Your task to perform on an android device: Search for "razer blade" on target.com, select the first entry, and add it to the cart. Image 0: 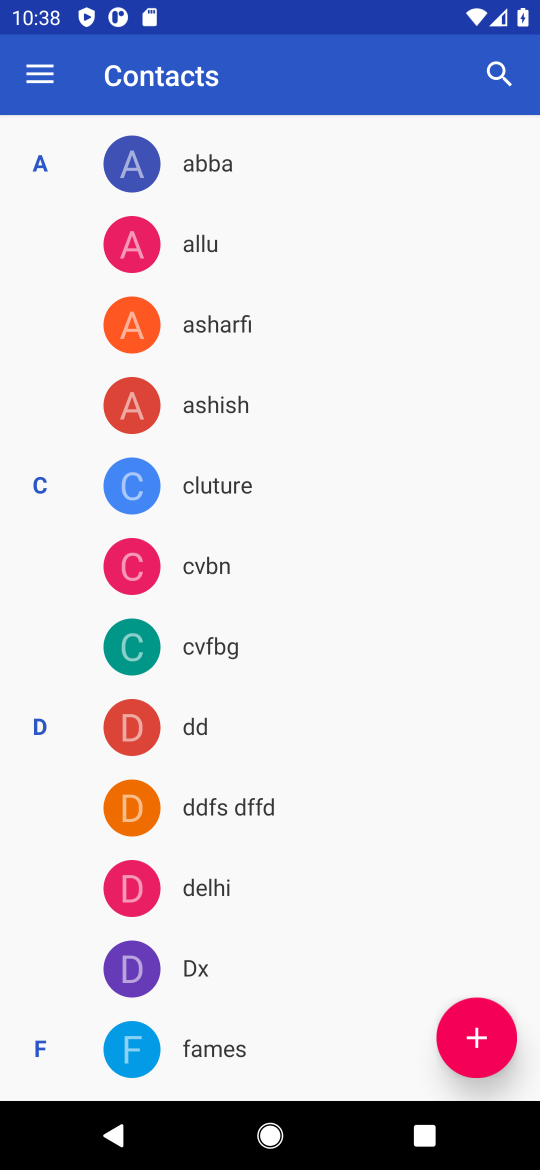
Step 0: press home button
Your task to perform on an android device: Search for "razer blade" on target.com, select the first entry, and add it to the cart. Image 1: 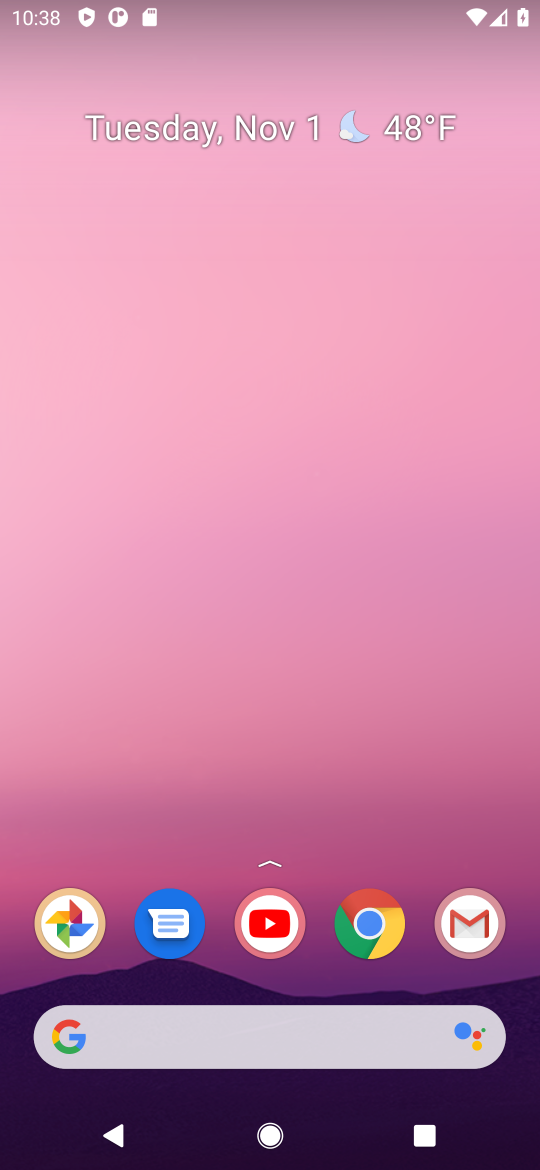
Step 1: click (366, 910)
Your task to perform on an android device: Search for "razer blade" on target.com, select the first entry, and add it to the cart. Image 2: 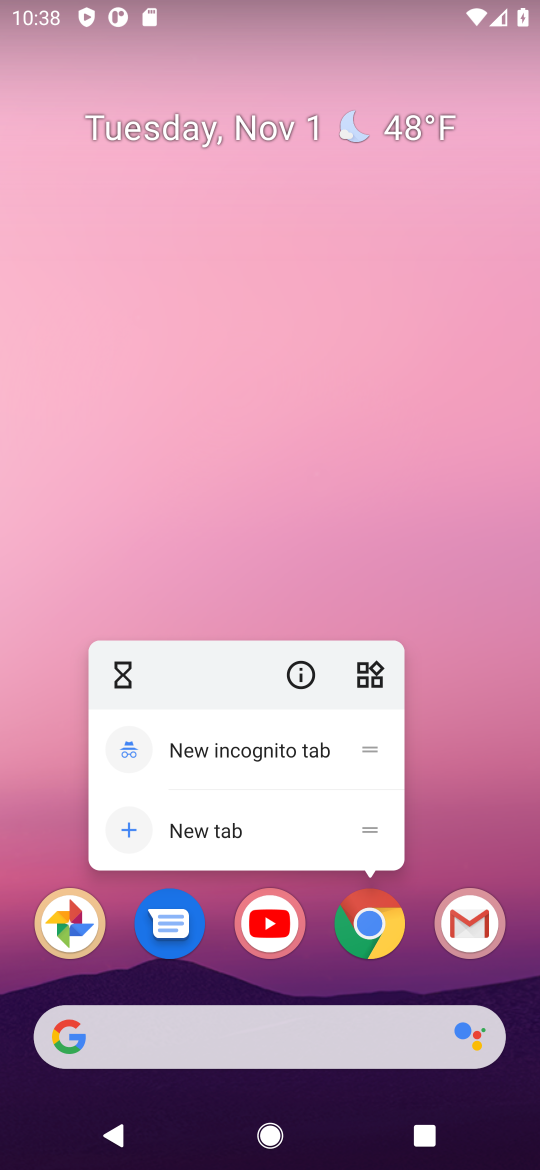
Step 2: click (366, 910)
Your task to perform on an android device: Search for "razer blade" on target.com, select the first entry, and add it to the cart. Image 3: 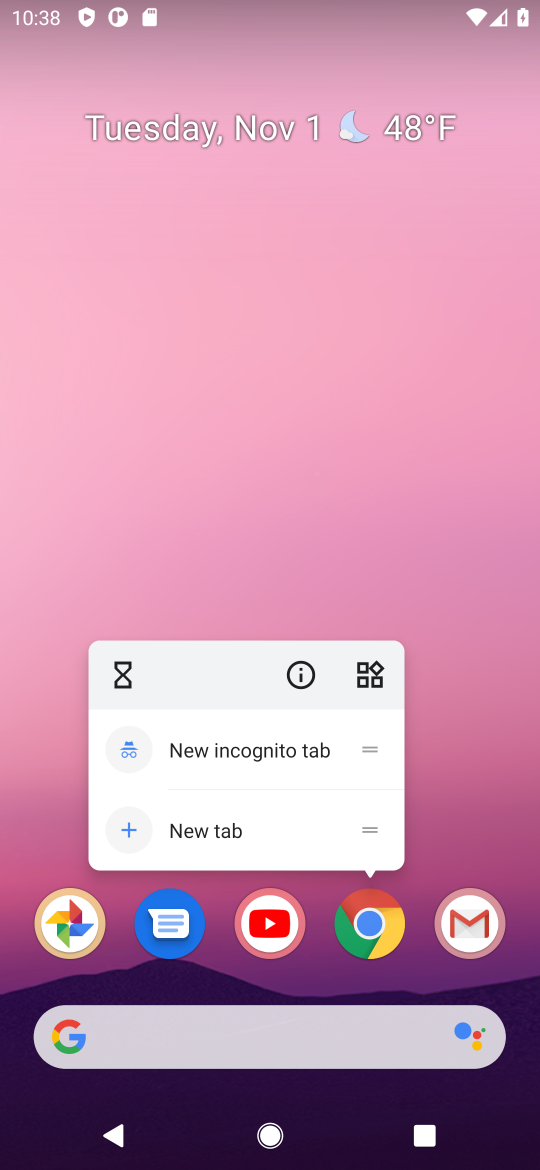
Step 3: click (366, 910)
Your task to perform on an android device: Search for "razer blade" on target.com, select the first entry, and add it to the cart. Image 4: 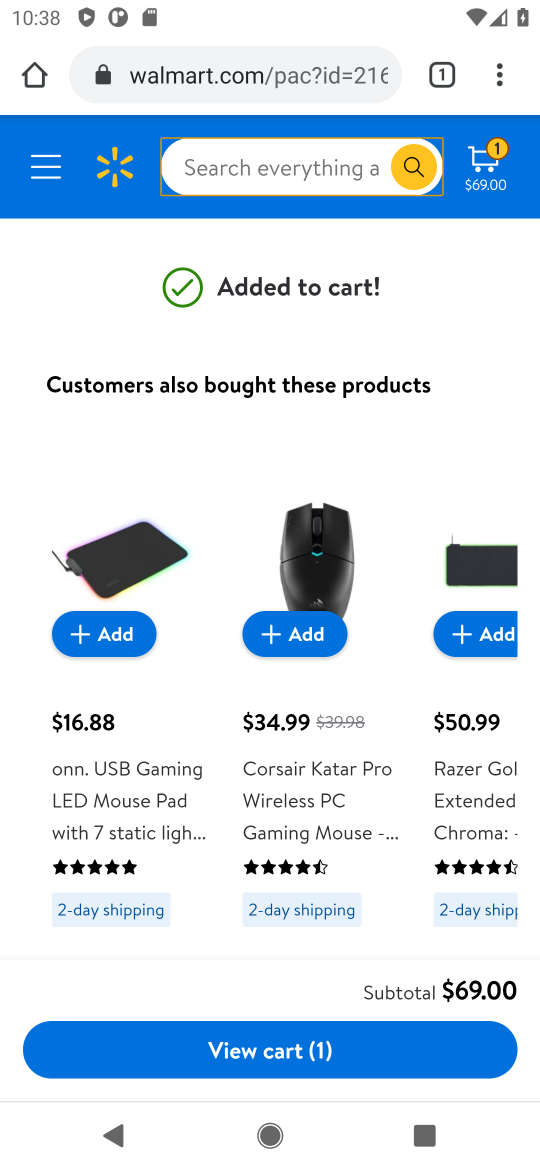
Step 4: click (258, 77)
Your task to perform on an android device: Search for "razer blade" on target.com, select the first entry, and add it to the cart. Image 5: 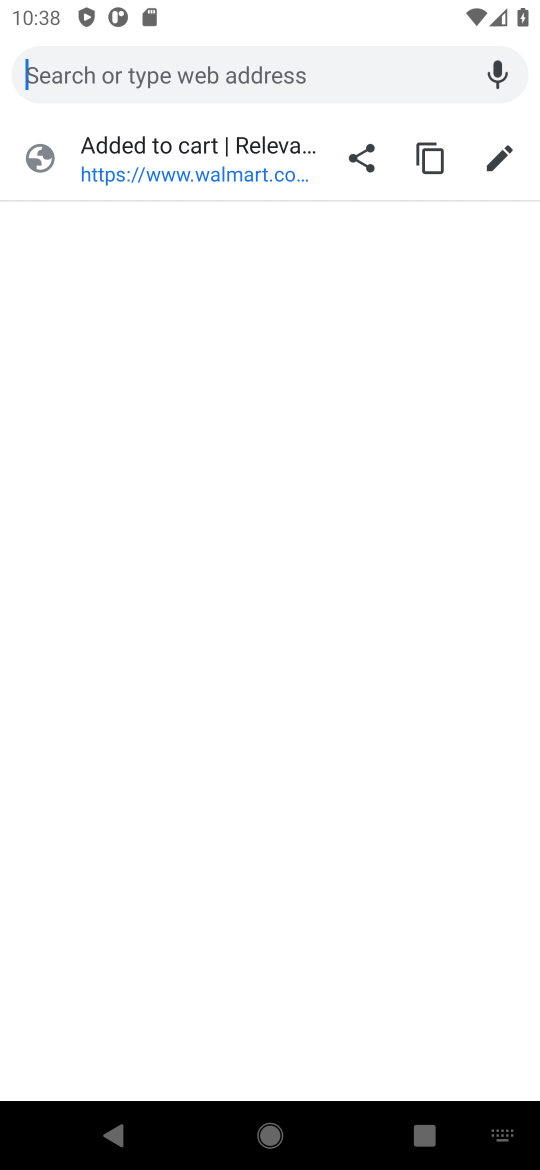
Step 5: type "target.com"
Your task to perform on an android device: Search for "razer blade" on target.com, select the first entry, and add it to the cart. Image 6: 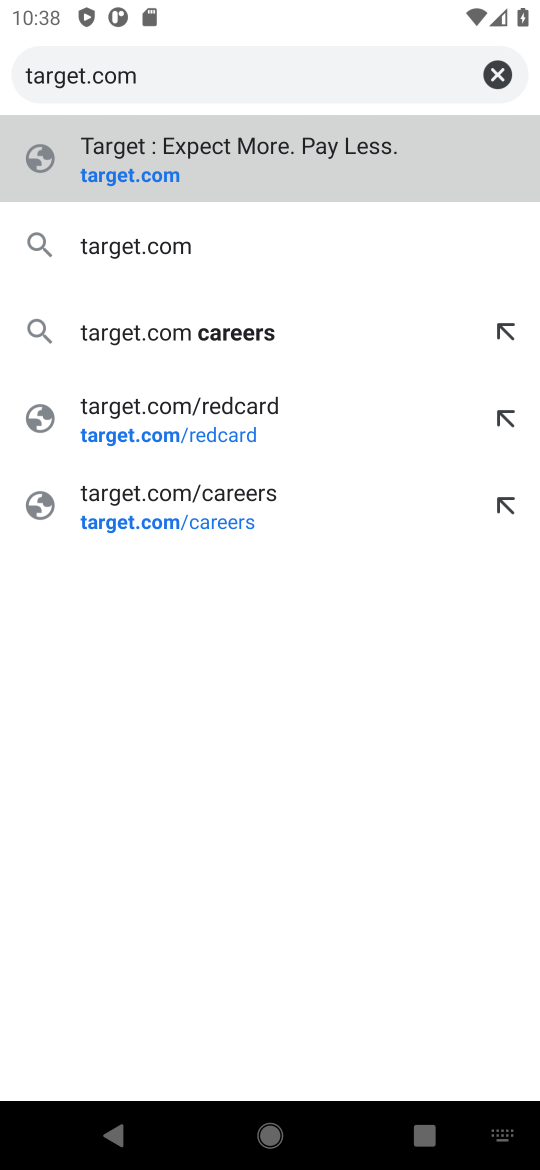
Step 6: click (278, 170)
Your task to perform on an android device: Search for "razer blade" on target.com, select the first entry, and add it to the cart. Image 7: 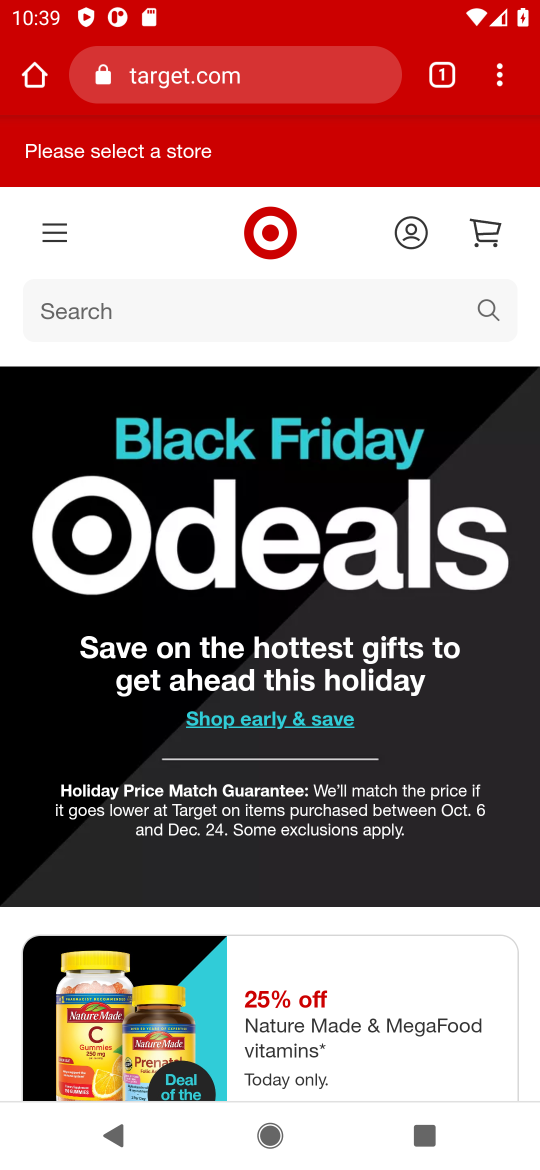
Step 7: click (272, 317)
Your task to perform on an android device: Search for "razer blade" on target.com, select the first entry, and add it to the cart. Image 8: 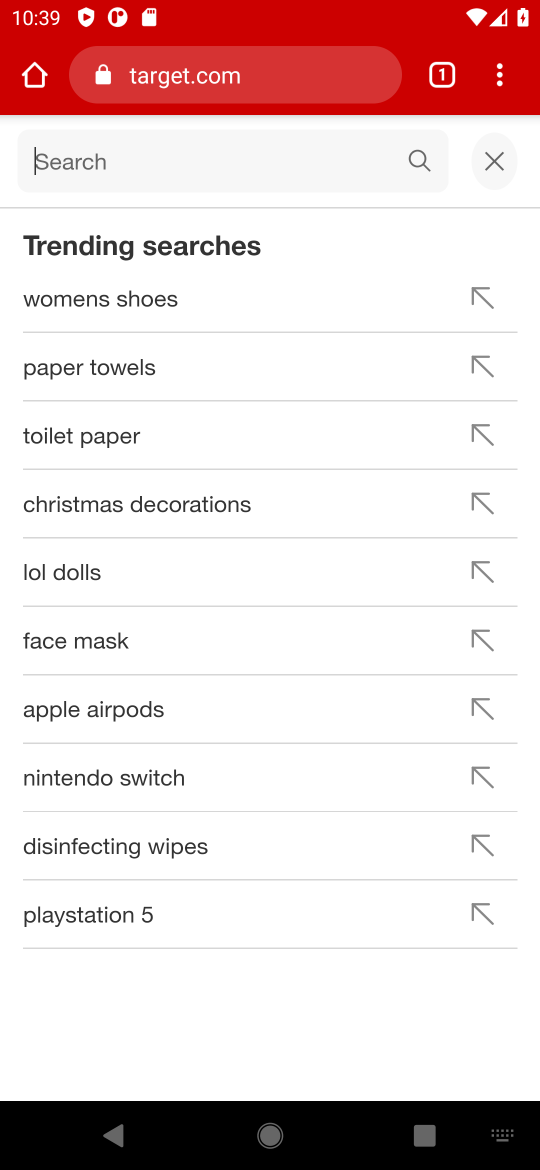
Step 8: type "razer blade"
Your task to perform on an android device: Search for "razer blade" on target.com, select the first entry, and add it to the cart. Image 9: 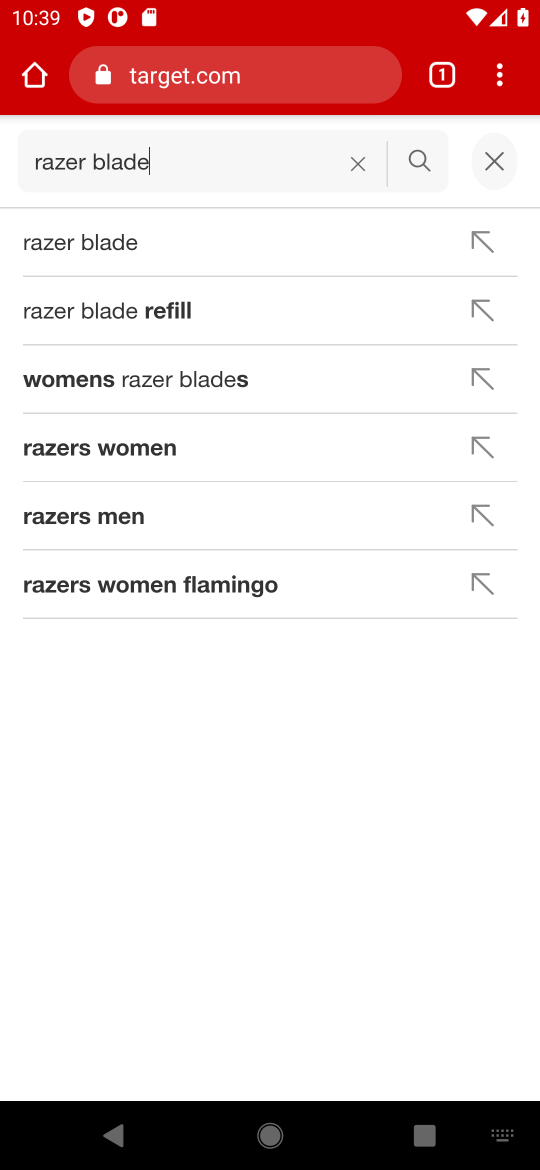
Step 9: press enter
Your task to perform on an android device: Search for "razer blade" on target.com, select the first entry, and add it to the cart. Image 10: 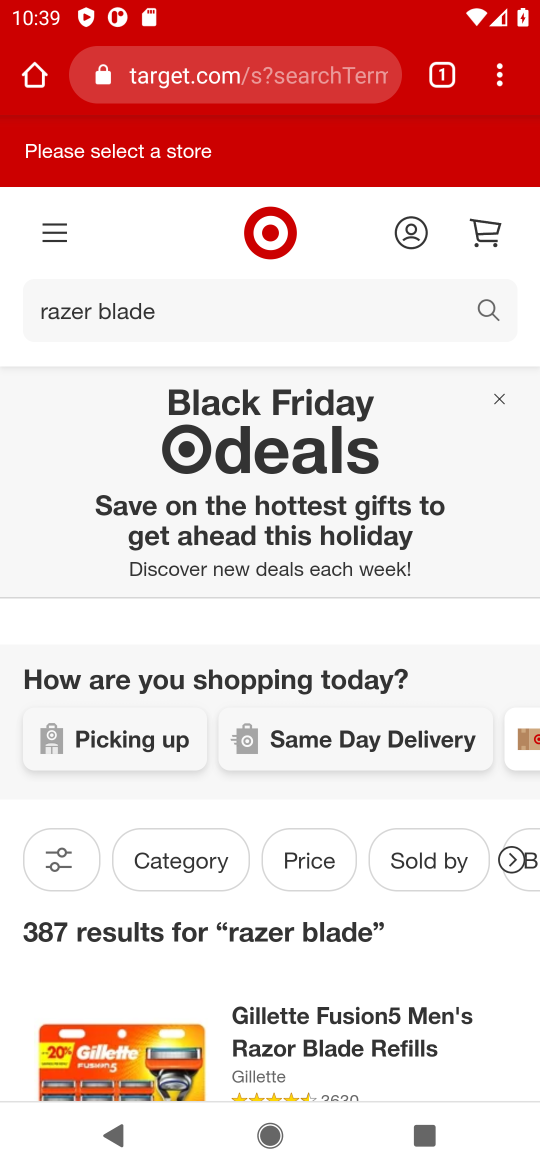
Step 10: click (264, 1027)
Your task to perform on an android device: Search for "razer blade" on target.com, select the first entry, and add it to the cart. Image 11: 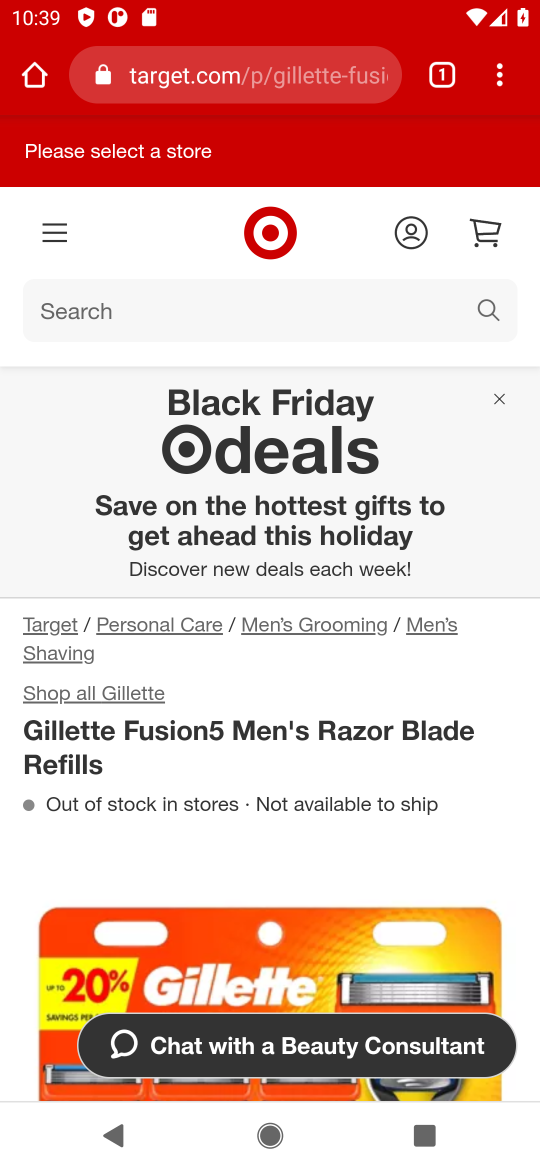
Step 11: drag from (255, 676) to (170, 237)
Your task to perform on an android device: Search for "razer blade" on target.com, select the first entry, and add it to the cart. Image 12: 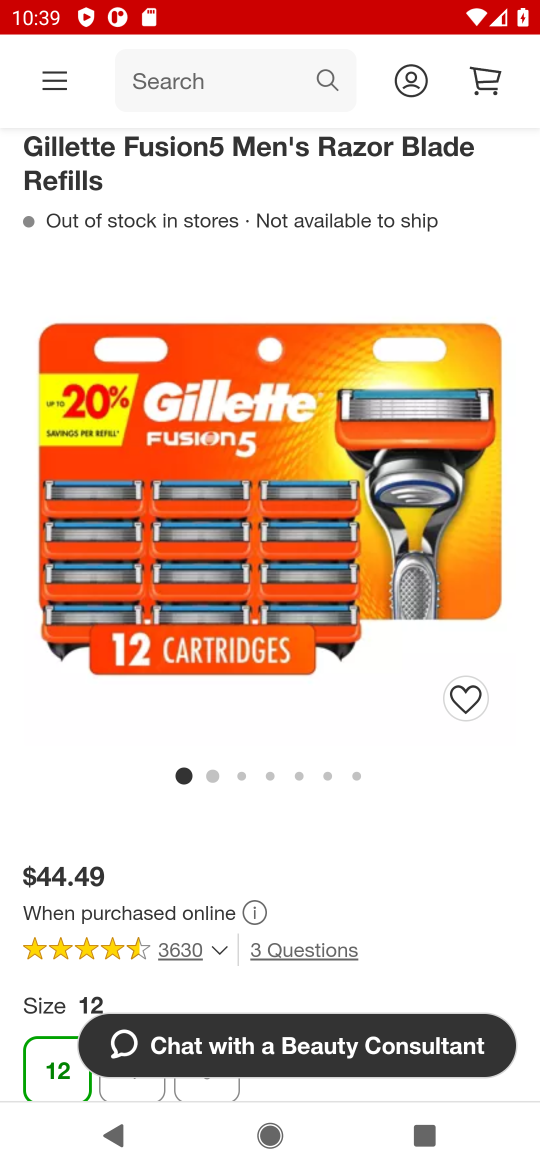
Step 12: drag from (358, 845) to (295, 428)
Your task to perform on an android device: Search for "razer blade" on target.com, select the first entry, and add it to the cart. Image 13: 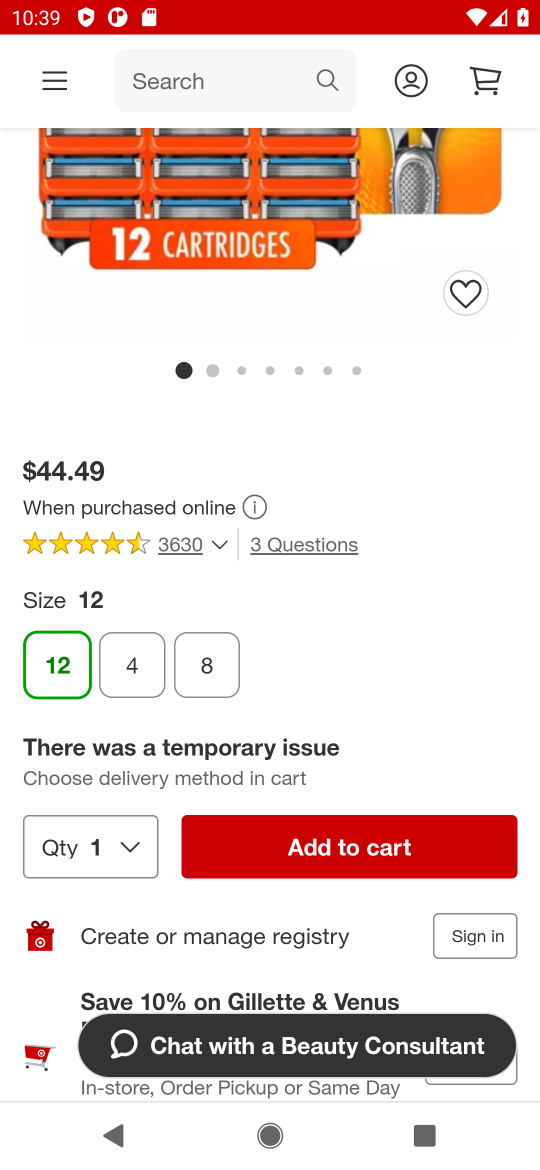
Step 13: click (348, 854)
Your task to perform on an android device: Search for "razer blade" on target.com, select the first entry, and add it to the cart. Image 14: 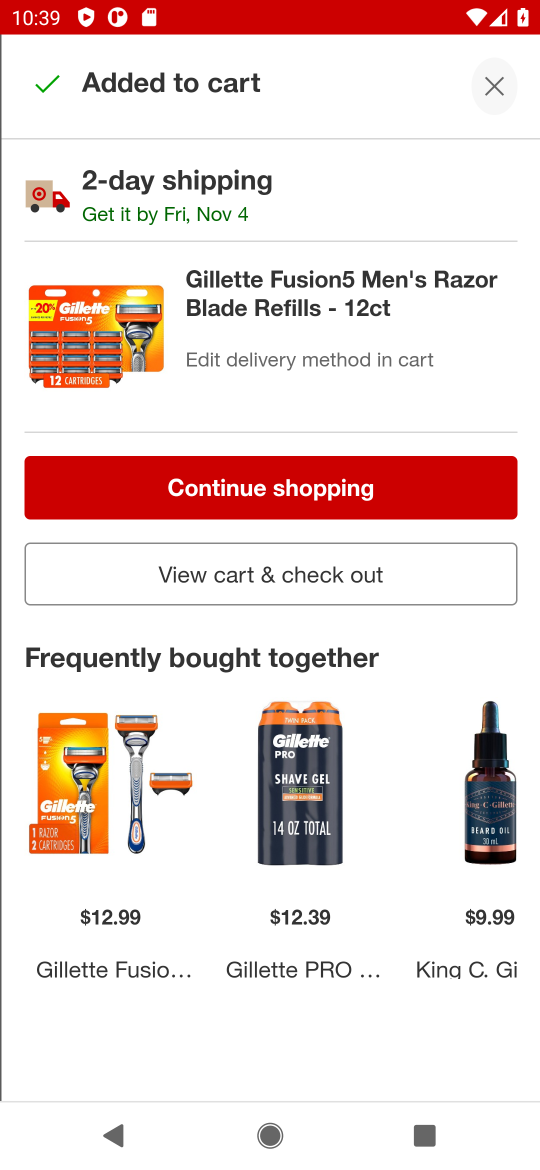
Step 14: task complete